Your task to perform on an android device: Do I have any events today? Image 0: 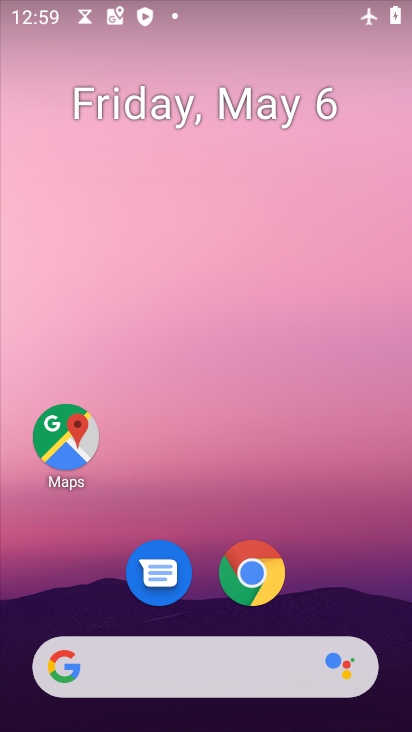
Step 0: drag from (329, 577) to (329, 302)
Your task to perform on an android device: Do I have any events today? Image 1: 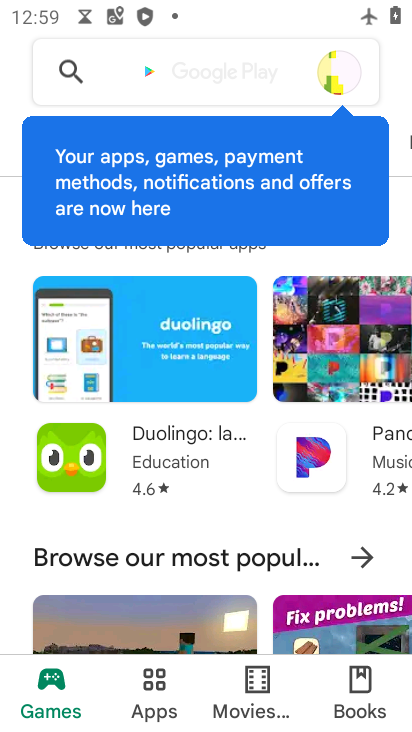
Step 1: press home button
Your task to perform on an android device: Do I have any events today? Image 2: 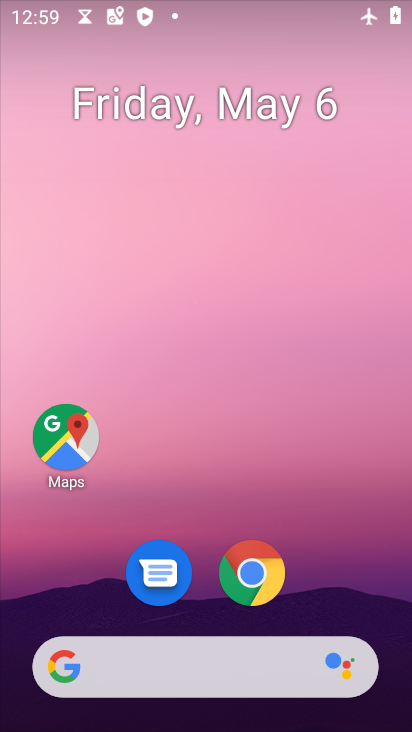
Step 2: drag from (302, 592) to (327, 311)
Your task to perform on an android device: Do I have any events today? Image 3: 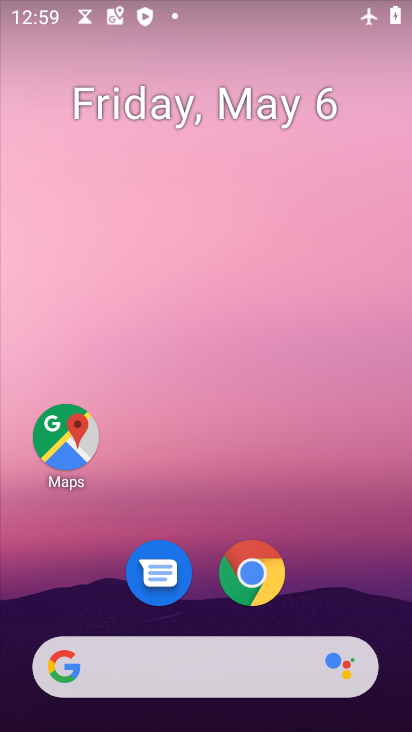
Step 3: drag from (352, 614) to (352, 286)
Your task to perform on an android device: Do I have any events today? Image 4: 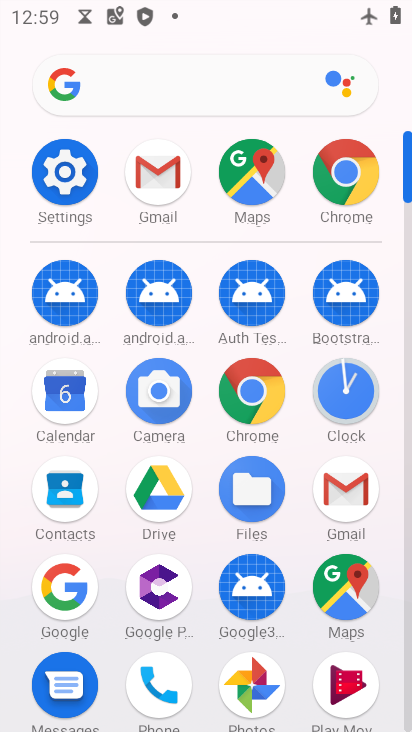
Step 4: click (54, 396)
Your task to perform on an android device: Do I have any events today? Image 5: 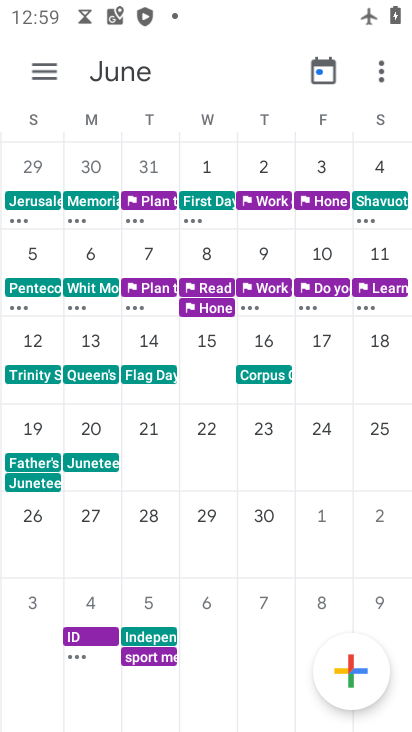
Step 5: drag from (55, 290) to (407, 290)
Your task to perform on an android device: Do I have any events today? Image 6: 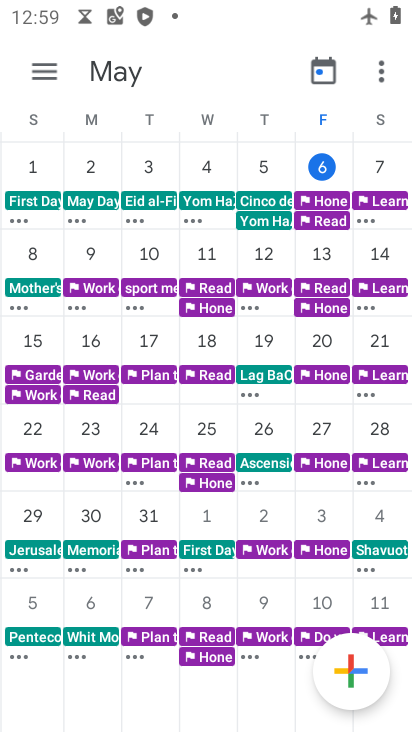
Step 6: click (314, 171)
Your task to perform on an android device: Do I have any events today? Image 7: 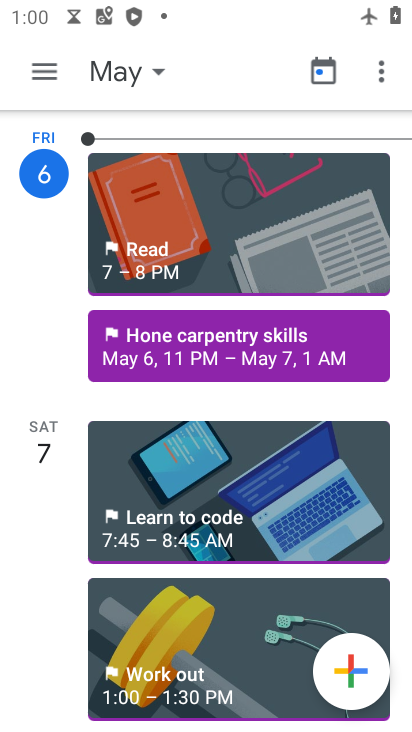
Step 7: task complete